Your task to perform on an android device: turn off airplane mode Image 0: 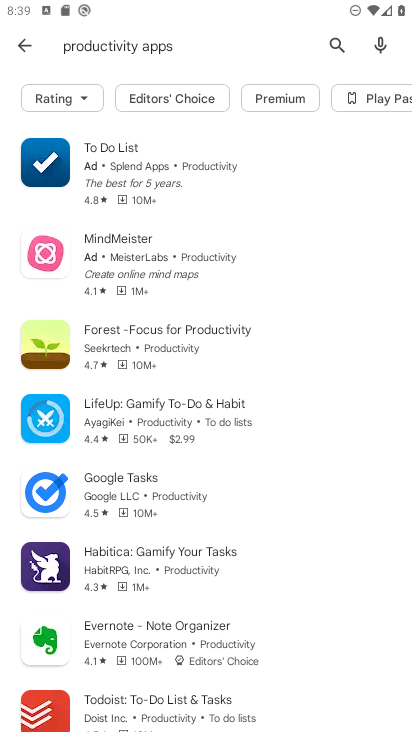
Step 0: press home button
Your task to perform on an android device: turn off airplane mode Image 1: 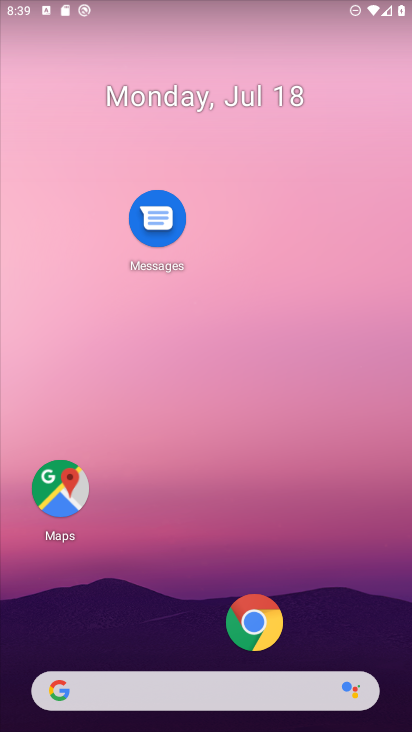
Step 1: drag from (136, 625) to (147, 185)
Your task to perform on an android device: turn off airplane mode Image 2: 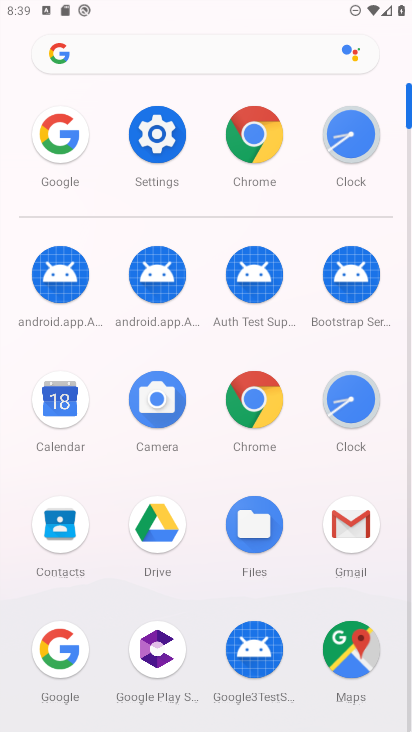
Step 2: click (178, 165)
Your task to perform on an android device: turn off airplane mode Image 3: 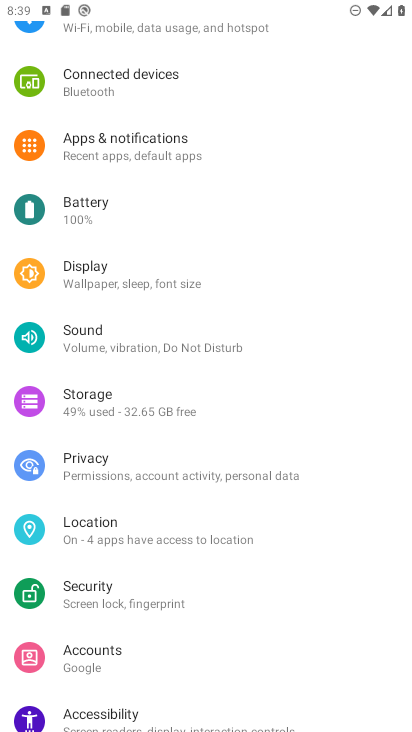
Step 3: drag from (235, 341) to (235, 723)
Your task to perform on an android device: turn off airplane mode Image 4: 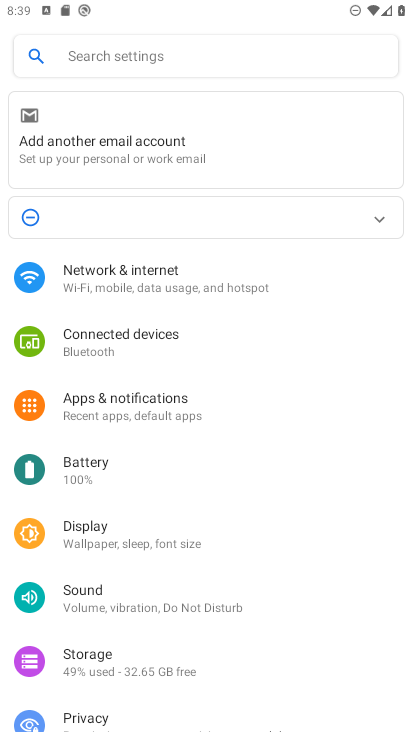
Step 4: click (184, 188)
Your task to perform on an android device: turn off airplane mode Image 5: 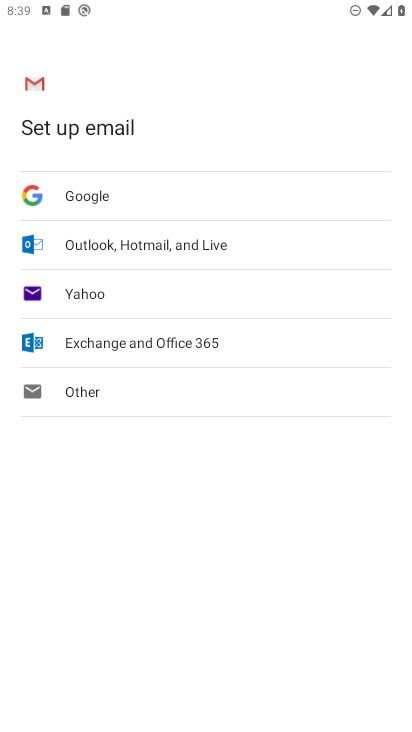
Step 5: press home button
Your task to perform on an android device: turn off airplane mode Image 6: 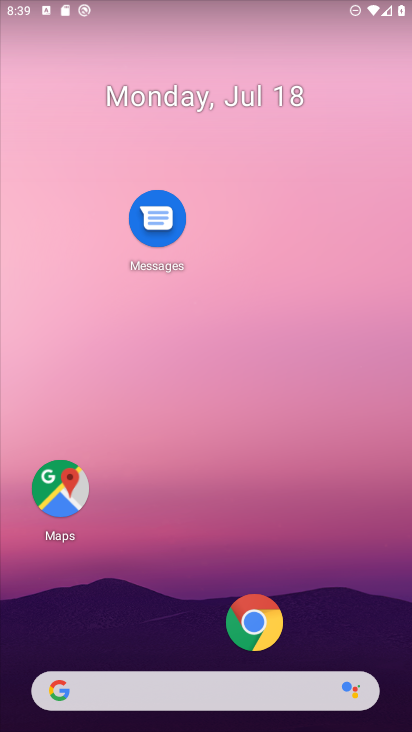
Step 6: drag from (177, 629) to (234, 117)
Your task to perform on an android device: turn off airplane mode Image 7: 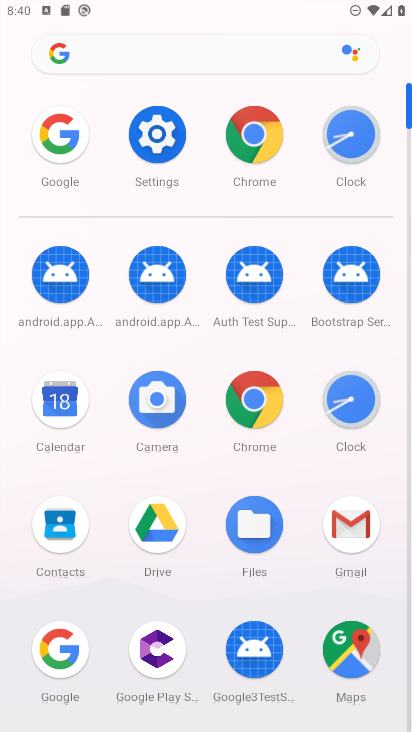
Step 7: drag from (282, 526) to (260, 161)
Your task to perform on an android device: turn off airplane mode Image 8: 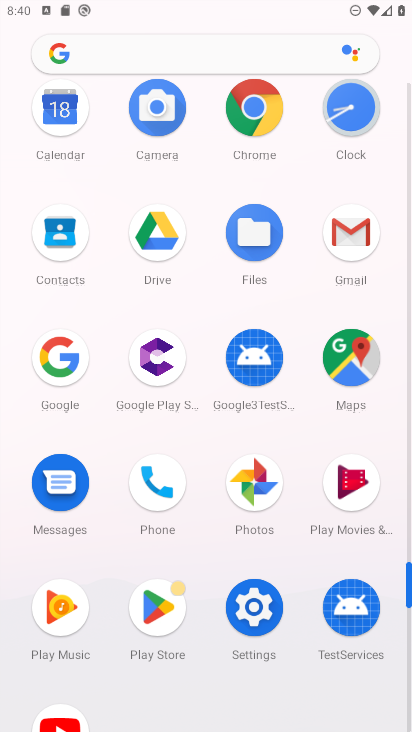
Step 8: click (249, 622)
Your task to perform on an android device: turn off airplane mode Image 9: 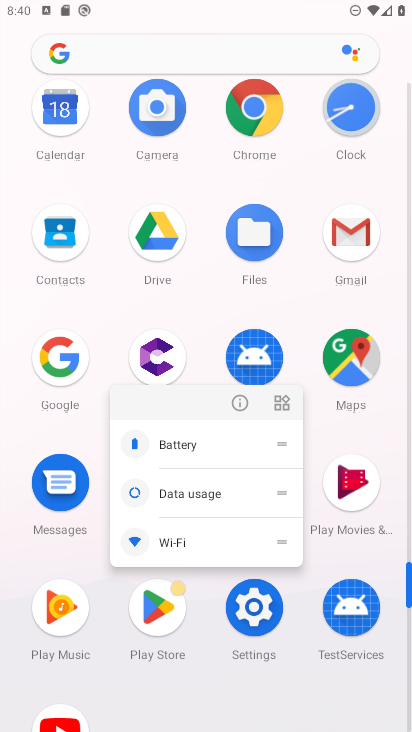
Step 9: click (260, 630)
Your task to perform on an android device: turn off airplane mode Image 10: 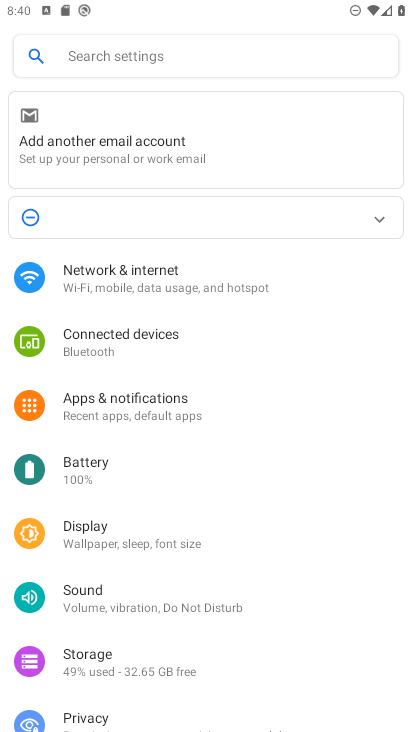
Step 10: click (138, 280)
Your task to perform on an android device: turn off airplane mode Image 11: 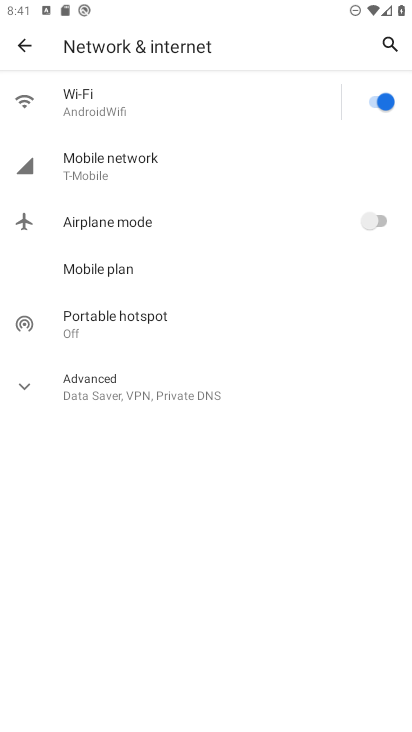
Step 11: click (381, 98)
Your task to perform on an android device: turn off airplane mode Image 12: 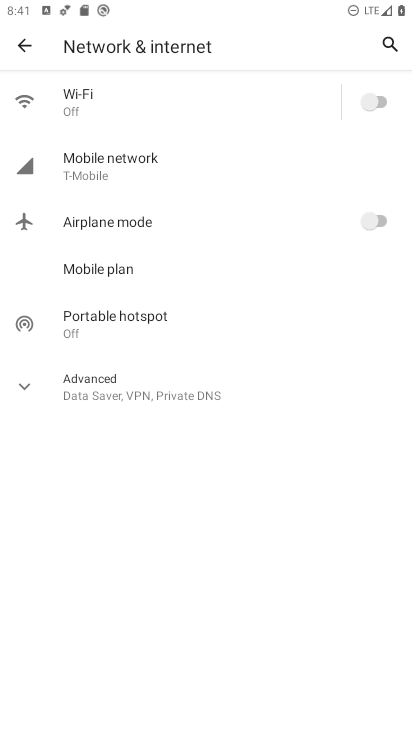
Step 12: task complete